Your task to perform on an android device: open device folders in google photos Image 0: 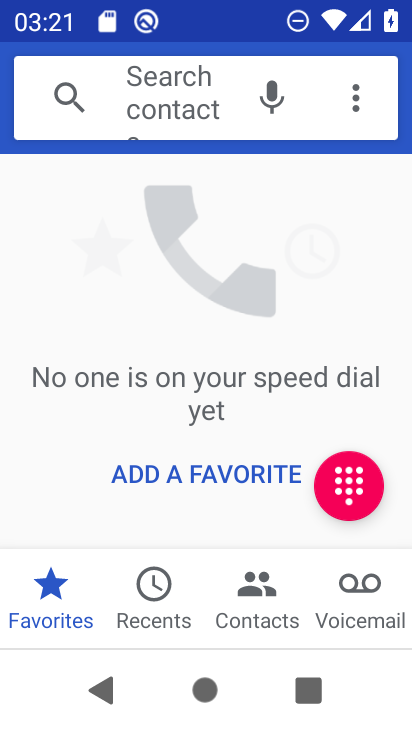
Step 0: press home button
Your task to perform on an android device: open device folders in google photos Image 1: 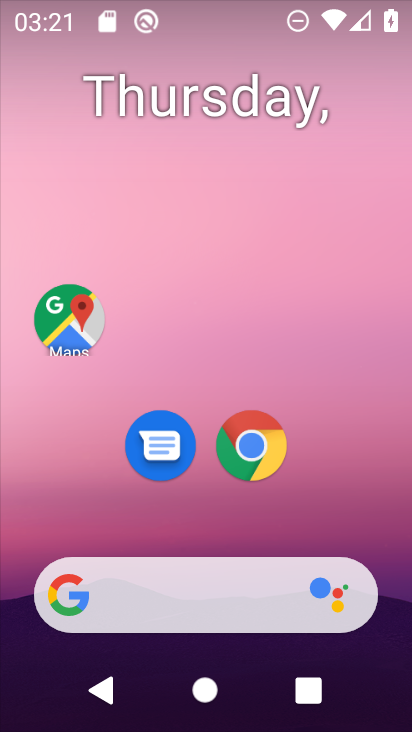
Step 1: drag from (353, 527) to (405, 14)
Your task to perform on an android device: open device folders in google photos Image 2: 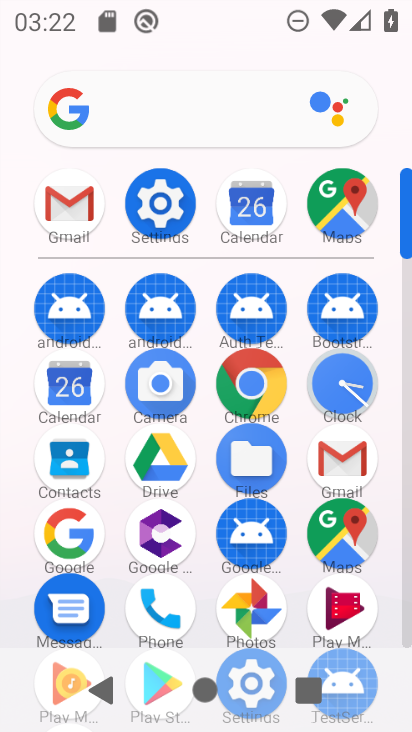
Step 2: click (254, 608)
Your task to perform on an android device: open device folders in google photos Image 3: 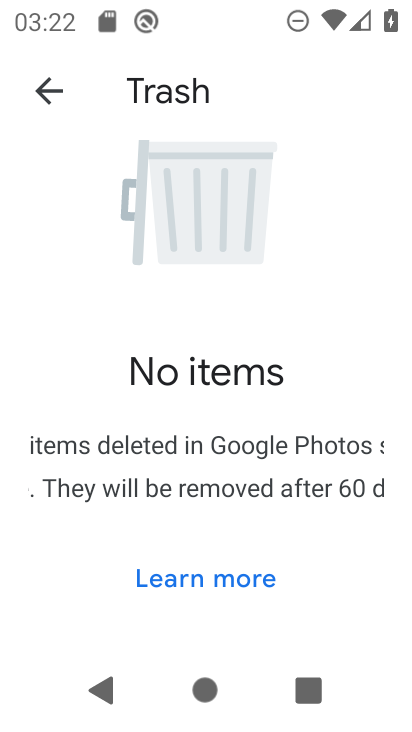
Step 3: click (41, 94)
Your task to perform on an android device: open device folders in google photos Image 4: 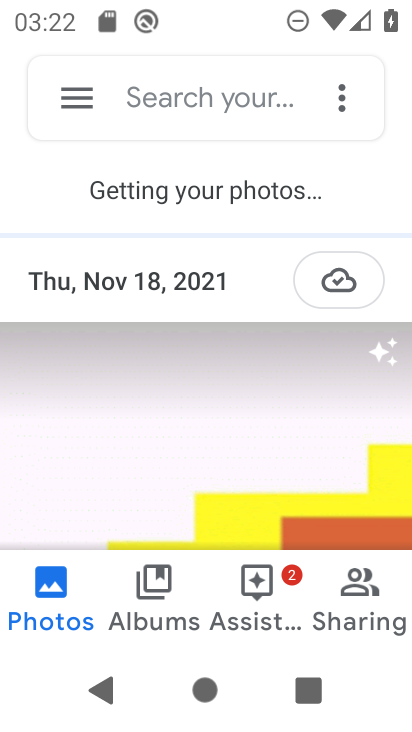
Step 4: click (70, 94)
Your task to perform on an android device: open device folders in google photos Image 5: 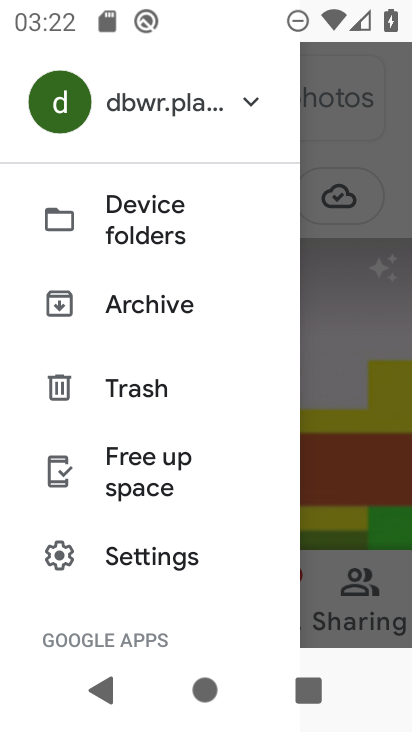
Step 5: click (134, 235)
Your task to perform on an android device: open device folders in google photos Image 6: 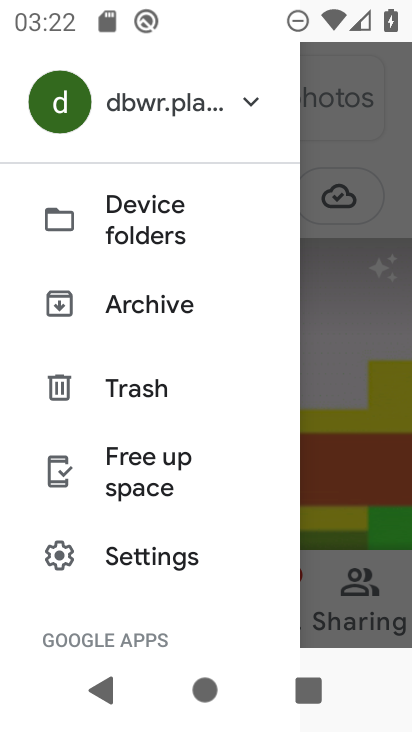
Step 6: click (149, 233)
Your task to perform on an android device: open device folders in google photos Image 7: 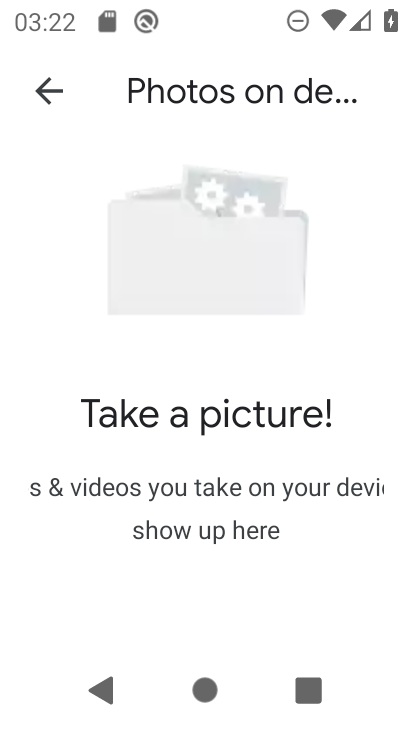
Step 7: task complete